Your task to perform on an android device: turn off translation in the chrome app Image 0: 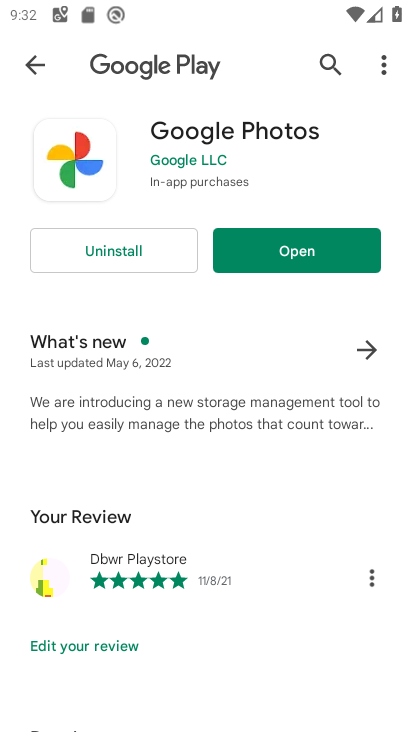
Step 0: press home button
Your task to perform on an android device: turn off translation in the chrome app Image 1: 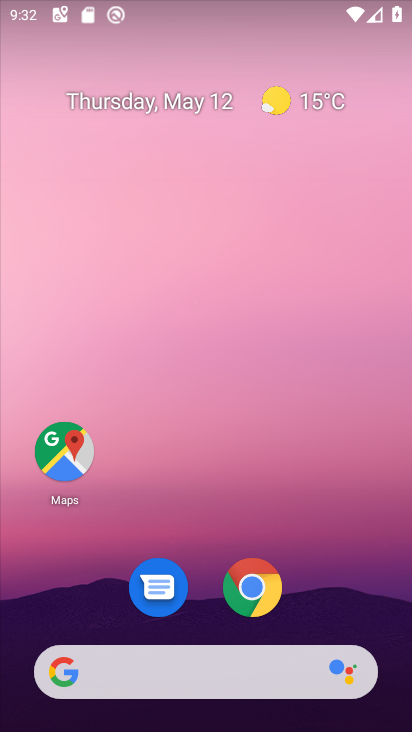
Step 1: drag from (382, 627) to (361, 54)
Your task to perform on an android device: turn off translation in the chrome app Image 2: 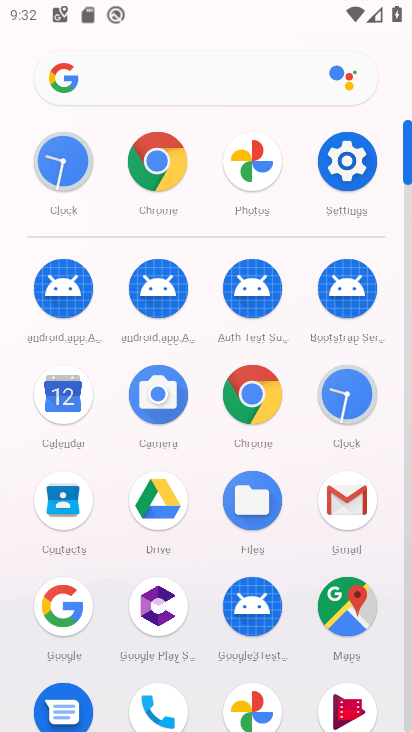
Step 2: click (253, 417)
Your task to perform on an android device: turn off translation in the chrome app Image 3: 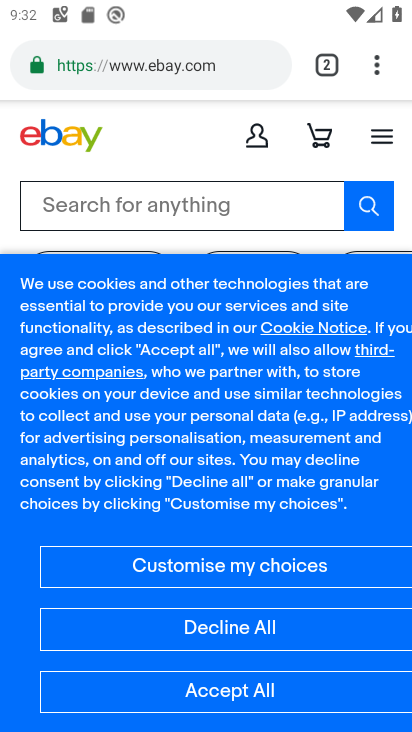
Step 3: press back button
Your task to perform on an android device: turn off translation in the chrome app Image 4: 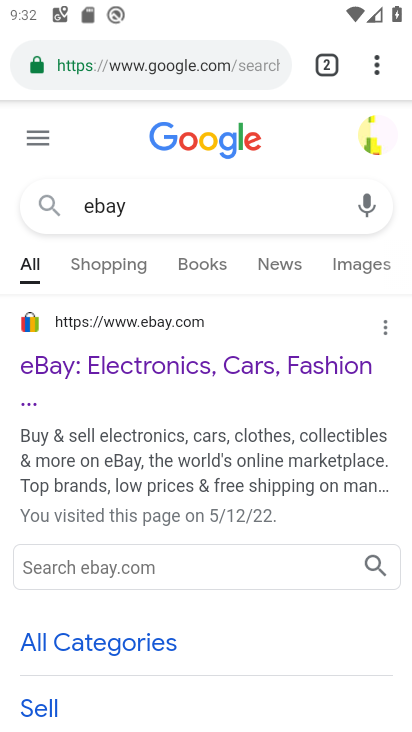
Step 4: press back button
Your task to perform on an android device: turn off translation in the chrome app Image 5: 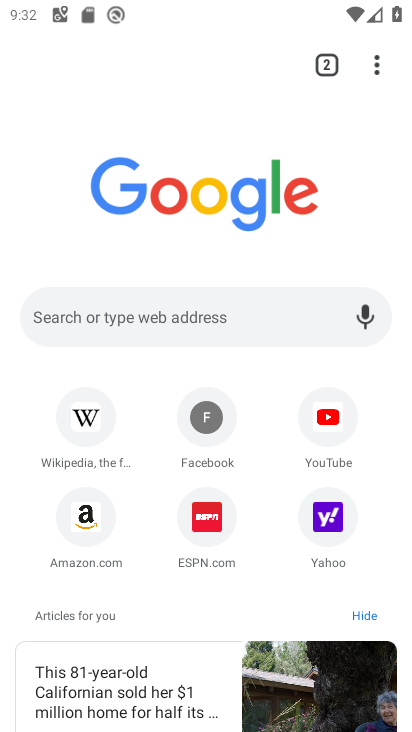
Step 5: click (375, 58)
Your task to perform on an android device: turn off translation in the chrome app Image 6: 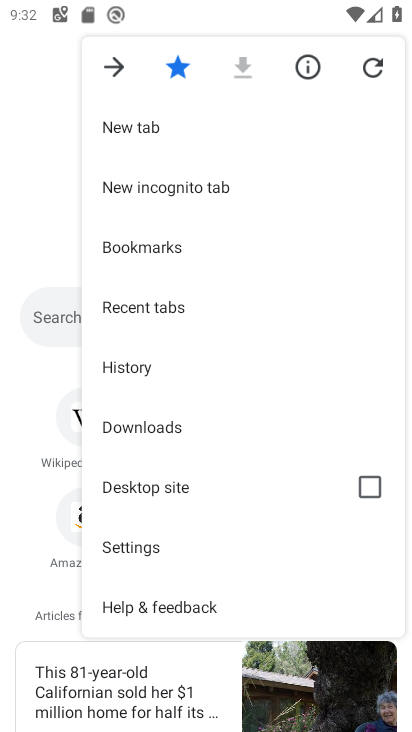
Step 6: click (167, 544)
Your task to perform on an android device: turn off translation in the chrome app Image 7: 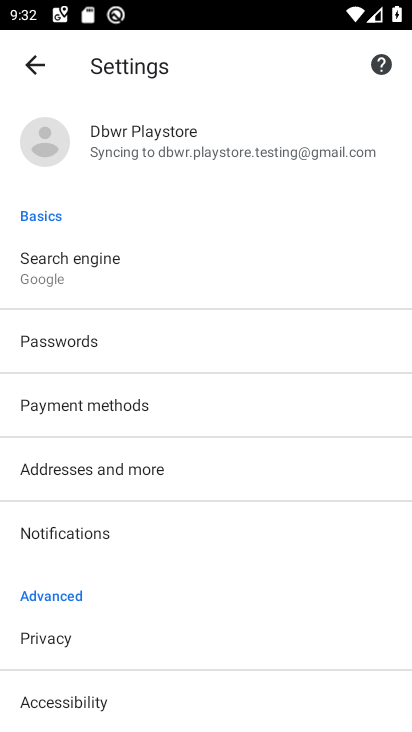
Step 7: drag from (105, 685) to (139, 249)
Your task to perform on an android device: turn off translation in the chrome app Image 8: 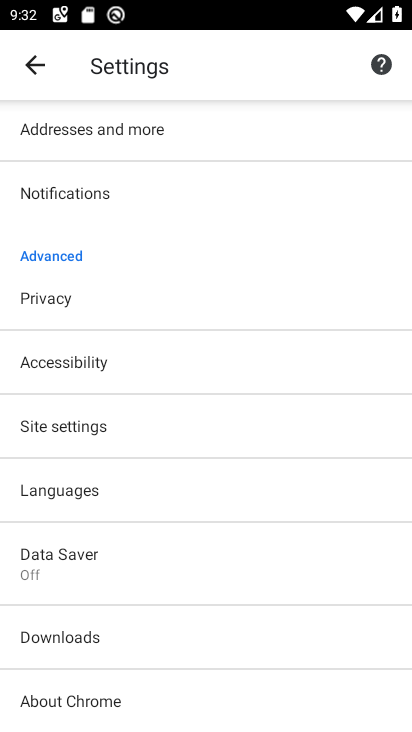
Step 8: click (136, 483)
Your task to perform on an android device: turn off translation in the chrome app Image 9: 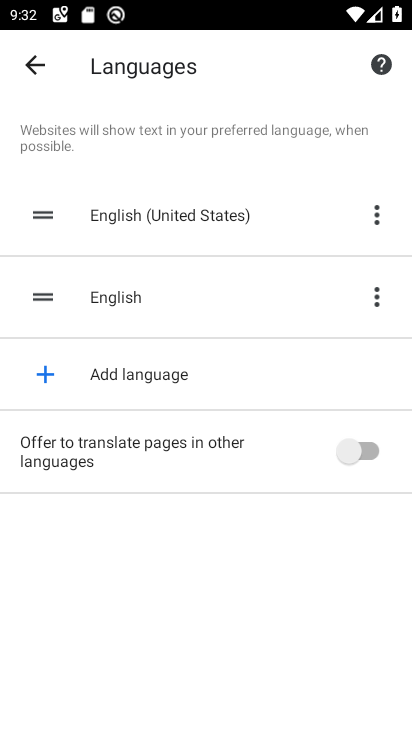
Step 9: task complete